Your task to perform on an android device: Add "lg ultragear" to the cart on newegg.com, then select checkout. Image 0: 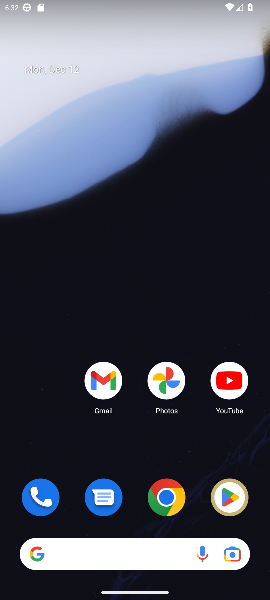
Step 0: press home button
Your task to perform on an android device: Add "lg ultragear" to the cart on newegg.com, then select checkout. Image 1: 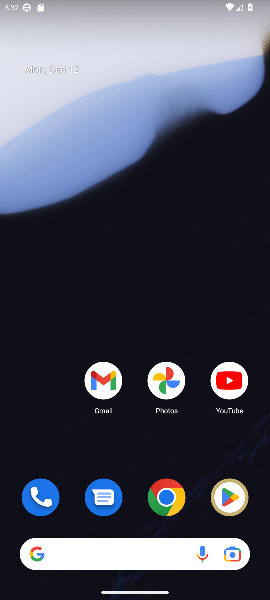
Step 1: drag from (45, 452) to (44, 97)
Your task to perform on an android device: Add "lg ultragear" to the cart on newegg.com, then select checkout. Image 2: 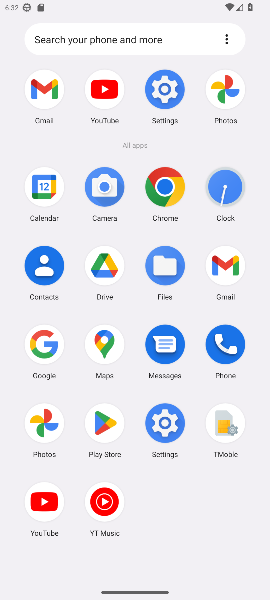
Step 2: click (42, 349)
Your task to perform on an android device: Add "lg ultragear" to the cart on newegg.com, then select checkout. Image 3: 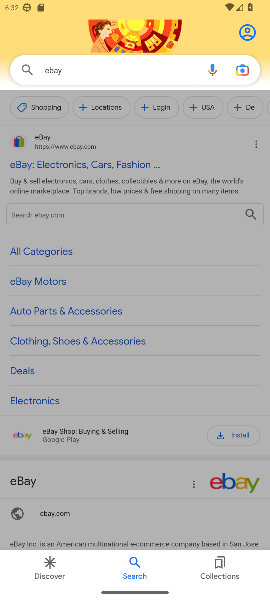
Step 3: click (119, 72)
Your task to perform on an android device: Add "lg ultragear" to the cart on newegg.com, then select checkout. Image 4: 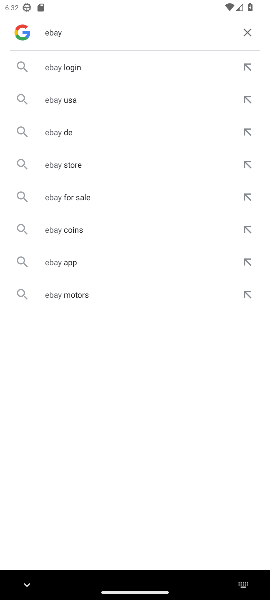
Step 4: click (248, 30)
Your task to perform on an android device: Add "lg ultragear" to the cart on newegg.com, then select checkout. Image 5: 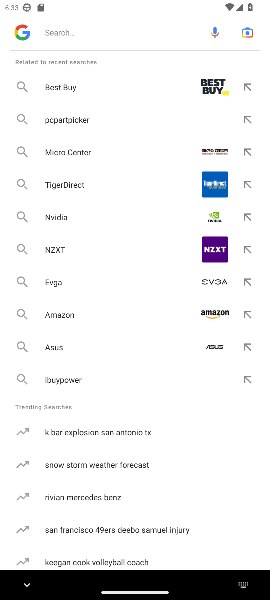
Step 5: type "newegg.com"
Your task to perform on an android device: Add "lg ultragear" to the cart on newegg.com, then select checkout. Image 6: 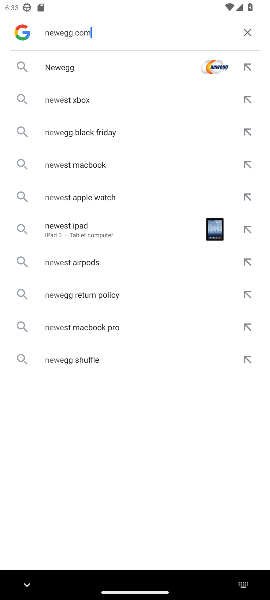
Step 6: press enter
Your task to perform on an android device: Add "lg ultragear" to the cart on newegg.com, then select checkout. Image 7: 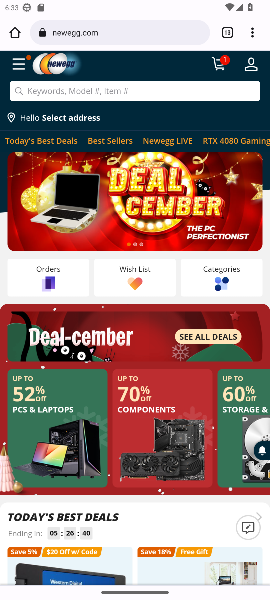
Step 7: click (39, 93)
Your task to perform on an android device: Add "lg ultragear" to the cart on newegg.com, then select checkout. Image 8: 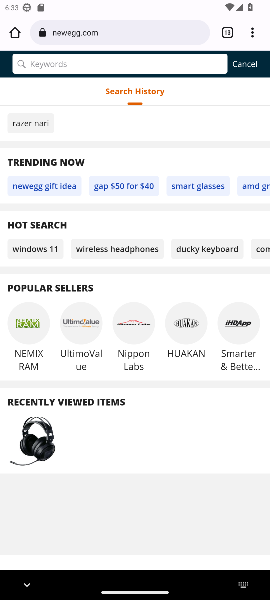
Step 8: type "lg ultragear"
Your task to perform on an android device: Add "lg ultragear" to the cart on newegg.com, then select checkout. Image 9: 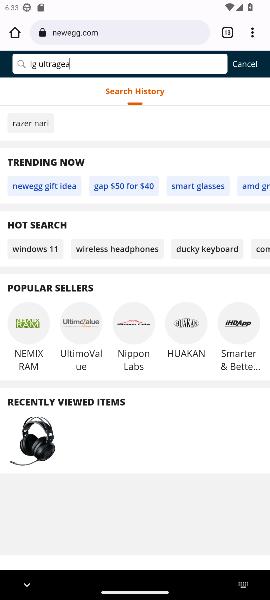
Step 9: press enter
Your task to perform on an android device: Add "lg ultragear" to the cart on newegg.com, then select checkout. Image 10: 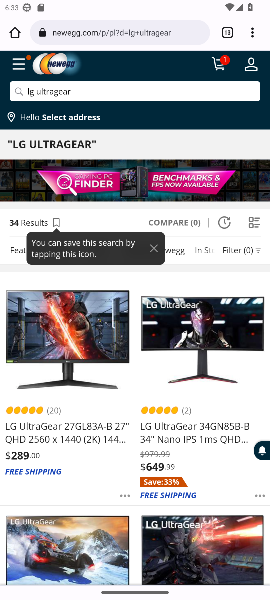
Step 10: drag from (154, 518) to (157, 343)
Your task to perform on an android device: Add "lg ultragear" to the cart on newegg.com, then select checkout. Image 11: 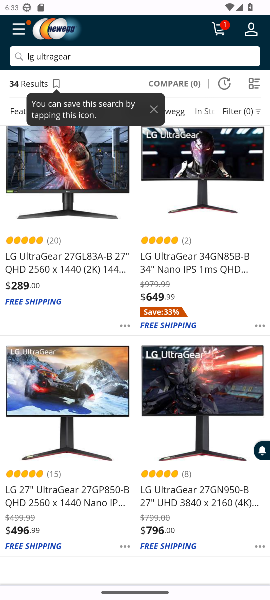
Step 11: click (44, 256)
Your task to perform on an android device: Add "lg ultragear" to the cart on newegg.com, then select checkout. Image 12: 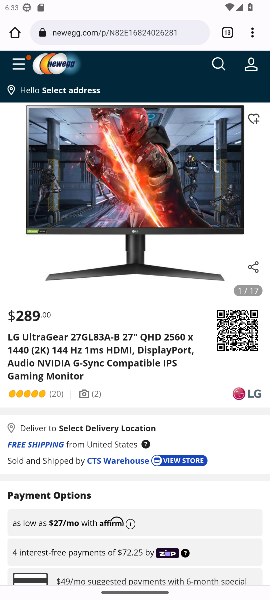
Step 12: drag from (145, 440) to (169, 213)
Your task to perform on an android device: Add "lg ultragear" to the cart on newegg.com, then select checkout. Image 13: 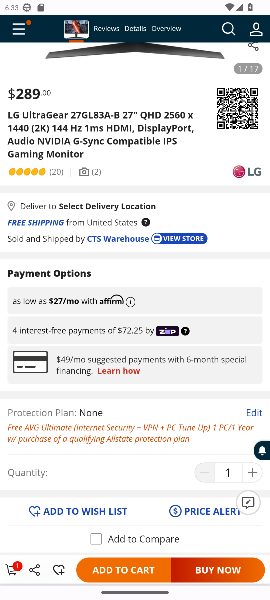
Step 13: click (125, 576)
Your task to perform on an android device: Add "lg ultragear" to the cart on newegg.com, then select checkout. Image 14: 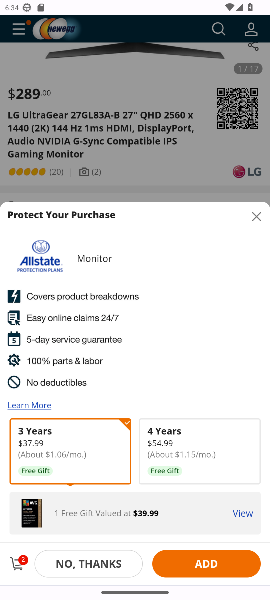
Step 14: click (14, 572)
Your task to perform on an android device: Add "lg ultragear" to the cart on newegg.com, then select checkout. Image 15: 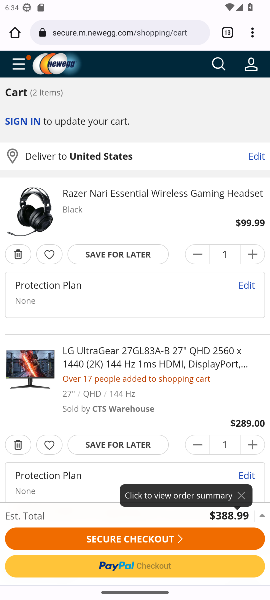
Step 15: task complete